Your task to perform on an android device: Go to ESPN.com Image 0: 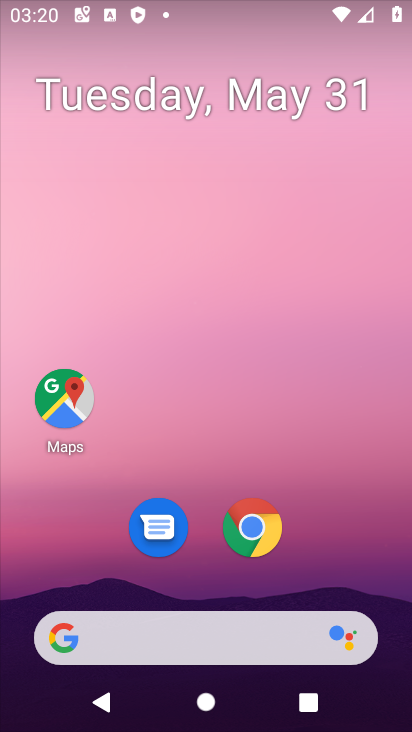
Step 0: click (254, 529)
Your task to perform on an android device: Go to ESPN.com Image 1: 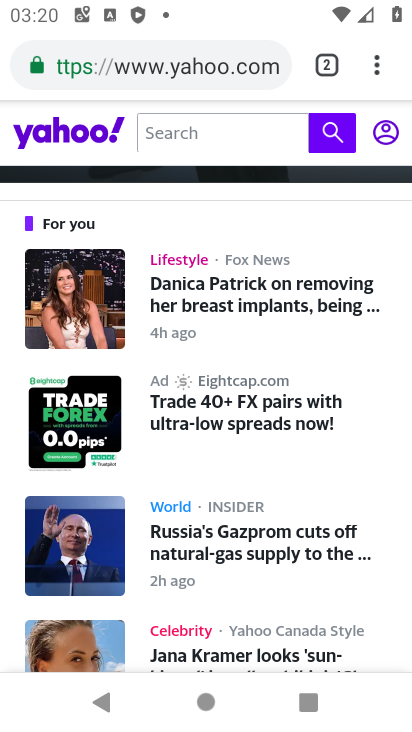
Step 1: click (272, 51)
Your task to perform on an android device: Go to ESPN.com Image 2: 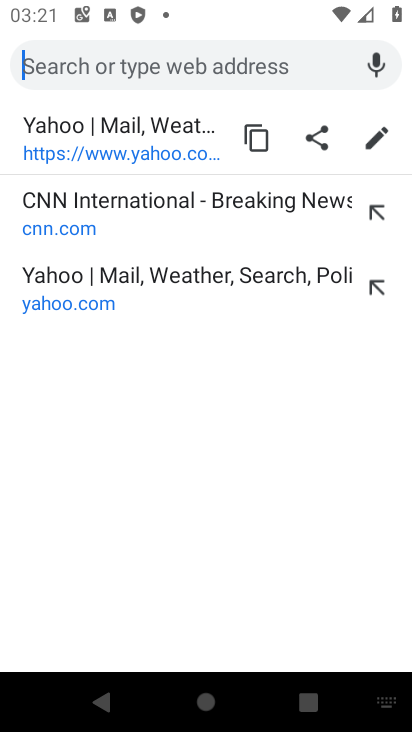
Step 2: type "espn.com"
Your task to perform on an android device: Go to ESPN.com Image 3: 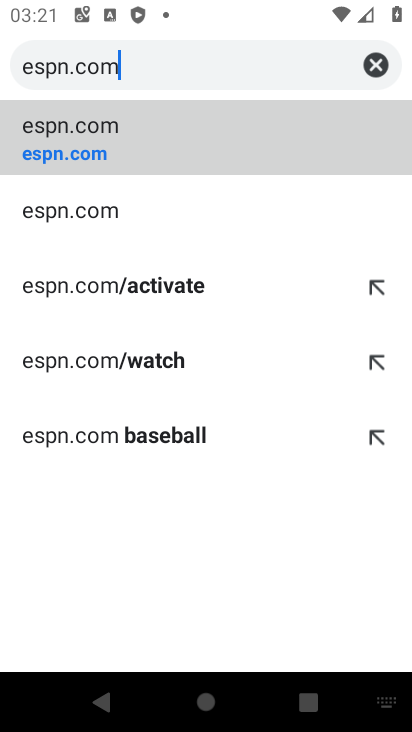
Step 3: click (61, 130)
Your task to perform on an android device: Go to ESPN.com Image 4: 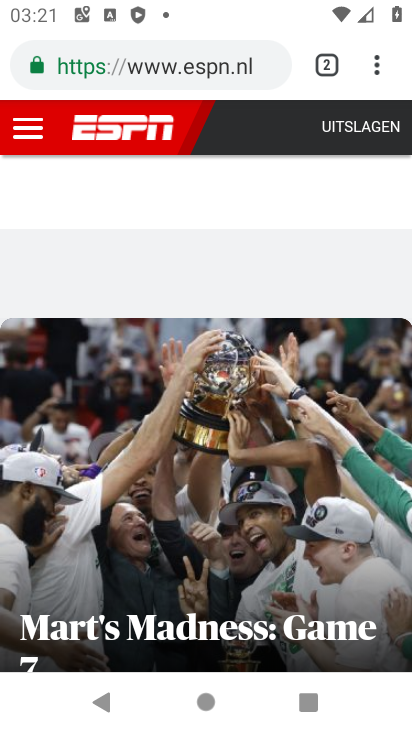
Step 4: task complete